Your task to perform on an android device: What is the recent news? Image 0: 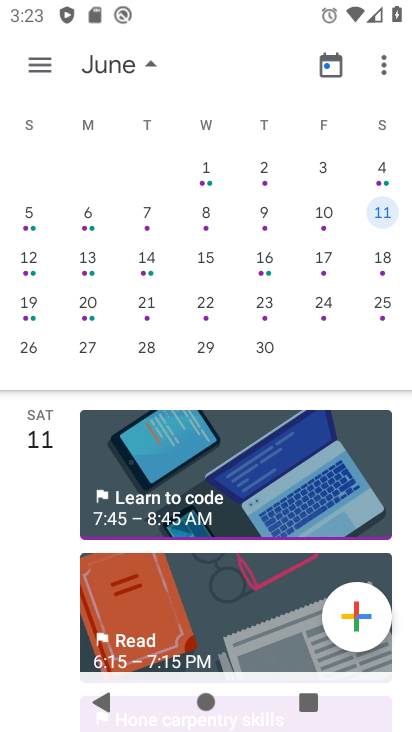
Step 0: press home button
Your task to perform on an android device: What is the recent news? Image 1: 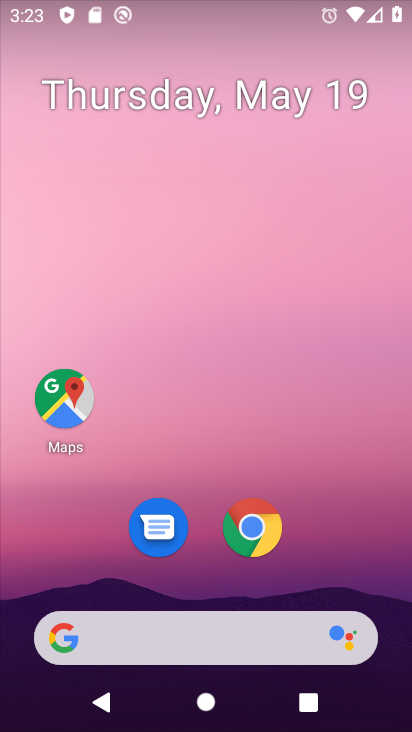
Step 1: drag from (292, 523) to (225, 170)
Your task to perform on an android device: What is the recent news? Image 2: 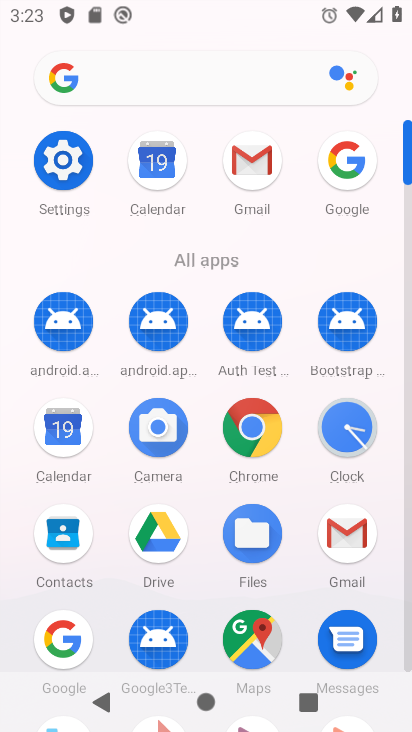
Step 2: click (363, 180)
Your task to perform on an android device: What is the recent news? Image 3: 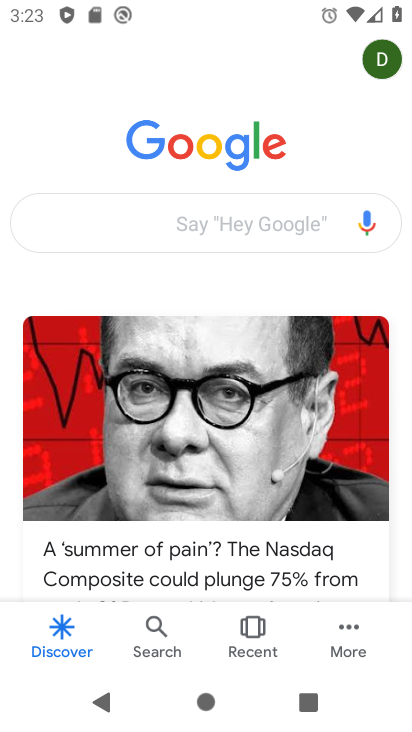
Step 3: click (201, 232)
Your task to perform on an android device: What is the recent news? Image 4: 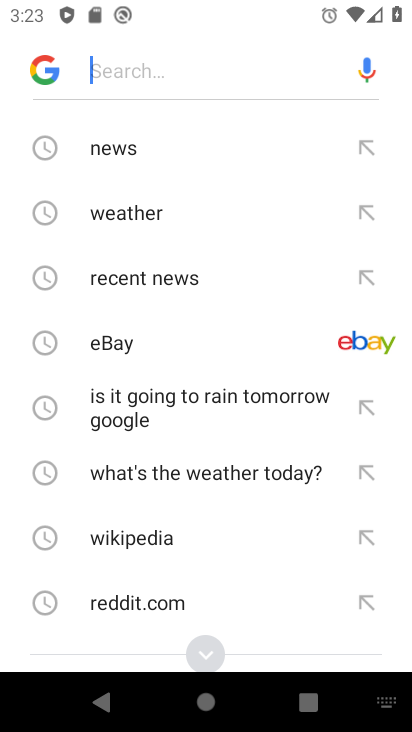
Step 4: click (191, 270)
Your task to perform on an android device: What is the recent news? Image 5: 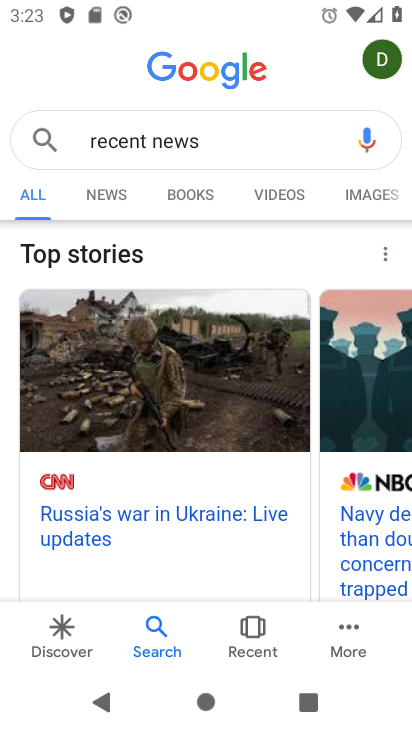
Step 5: task complete